Your task to perform on an android device: turn on sleep mode Image 0: 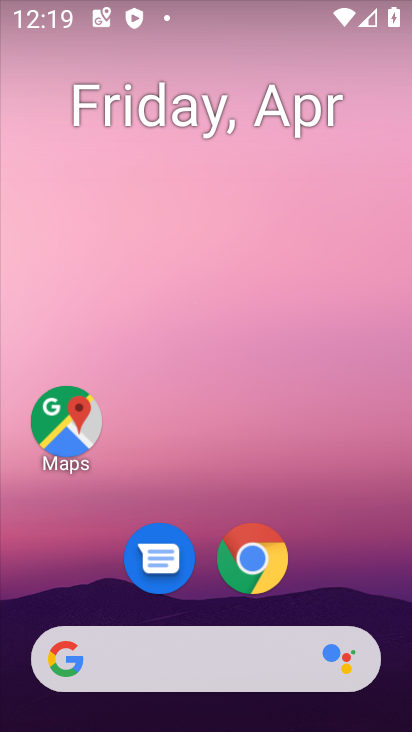
Step 0: drag from (368, 592) to (263, 76)
Your task to perform on an android device: turn on sleep mode Image 1: 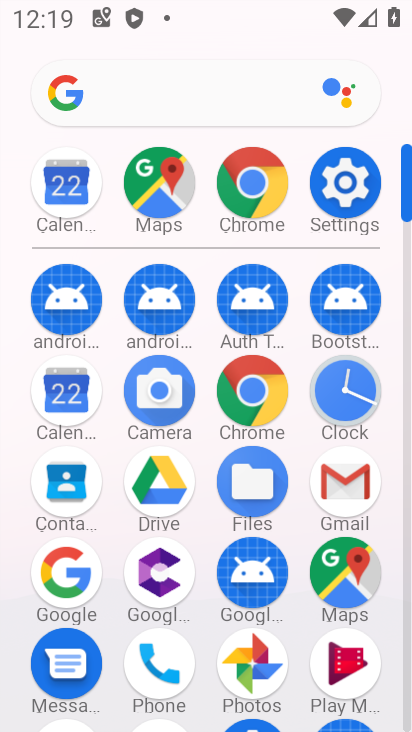
Step 1: click (324, 166)
Your task to perform on an android device: turn on sleep mode Image 2: 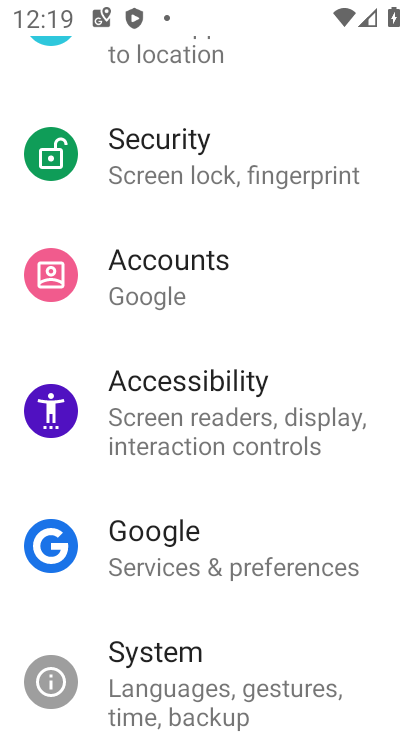
Step 2: task complete